Your task to perform on an android device: Open privacy settings Image 0: 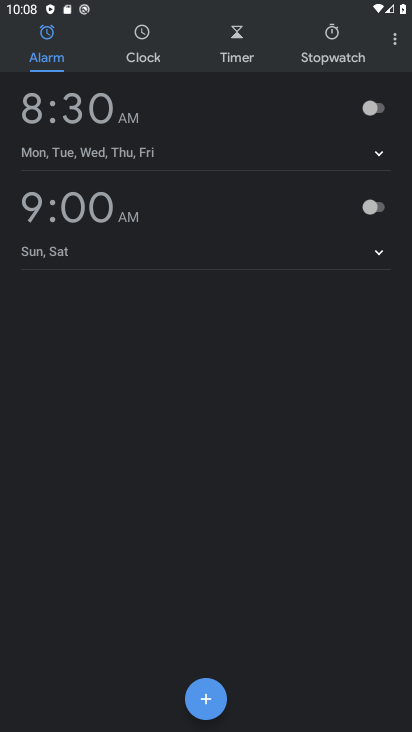
Step 0: press home button
Your task to perform on an android device: Open privacy settings Image 1: 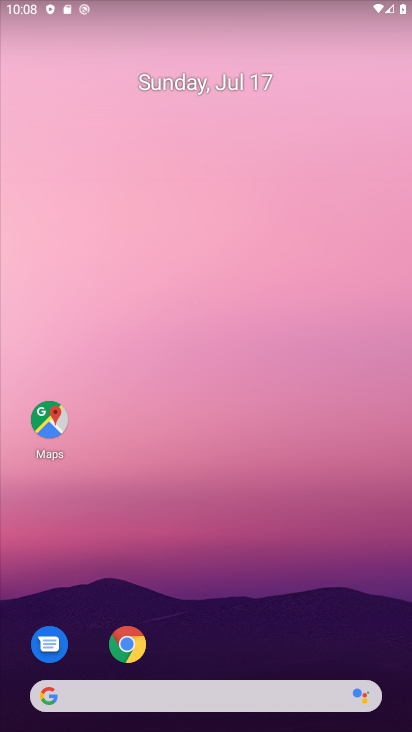
Step 1: drag from (347, 457) to (293, 55)
Your task to perform on an android device: Open privacy settings Image 2: 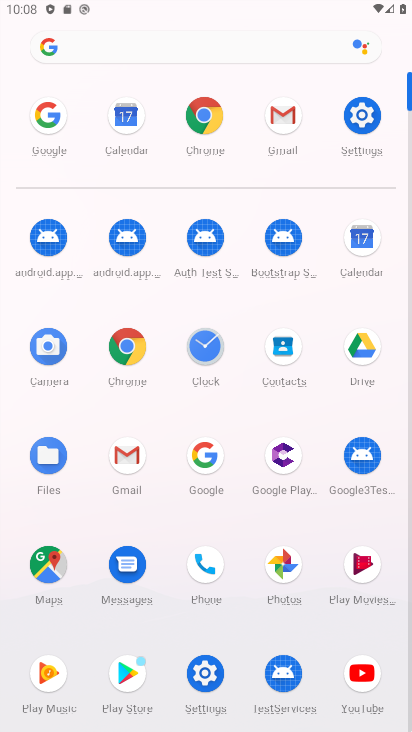
Step 2: click (358, 129)
Your task to perform on an android device: Open privacy settings Image 3: 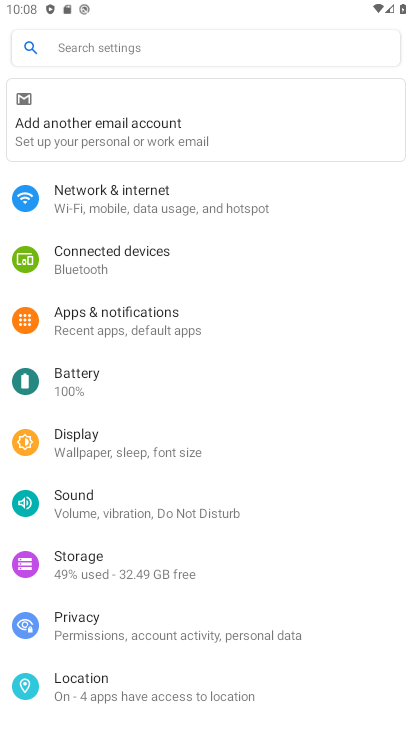
Step 3: click (123, 636)
Your task to perform on an android device: Open privacy settings Image 4: 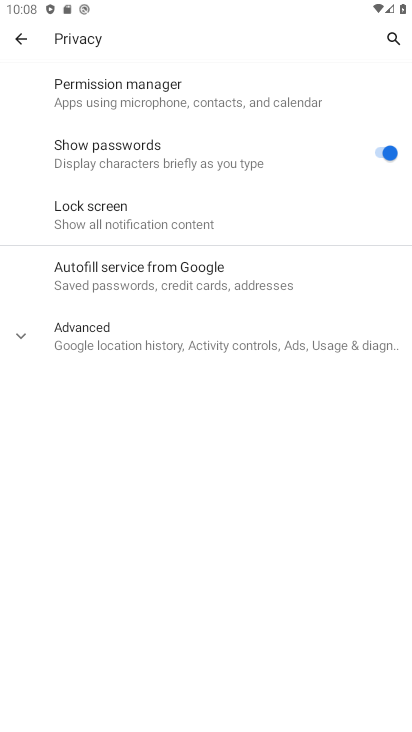
Step 4: task complete